Your task to perform on an android device: set the stopwatch Image 0: 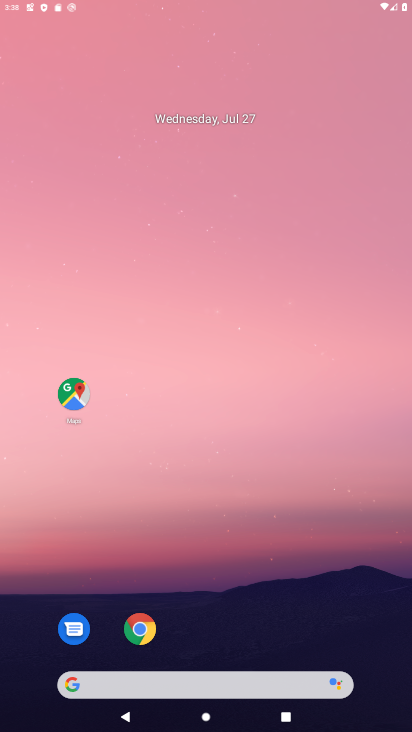
Step 0: press home button
Your task to perform on an android device: set the stopwatch Image 1: 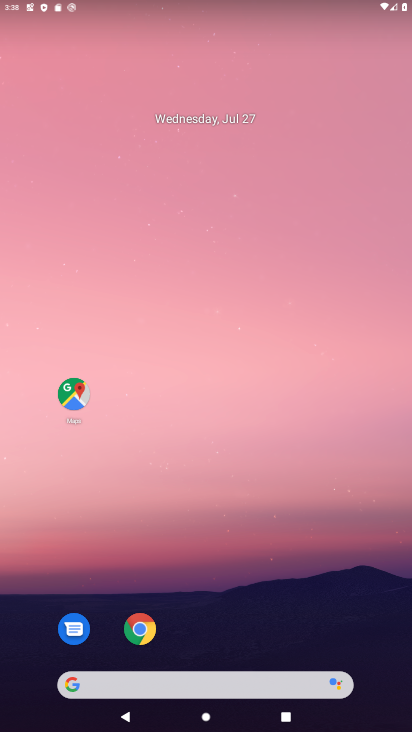
Step 1: drag from (298, 335) to (306, 33)
Your task to perform on an android device: set the stopwatch Image 2: 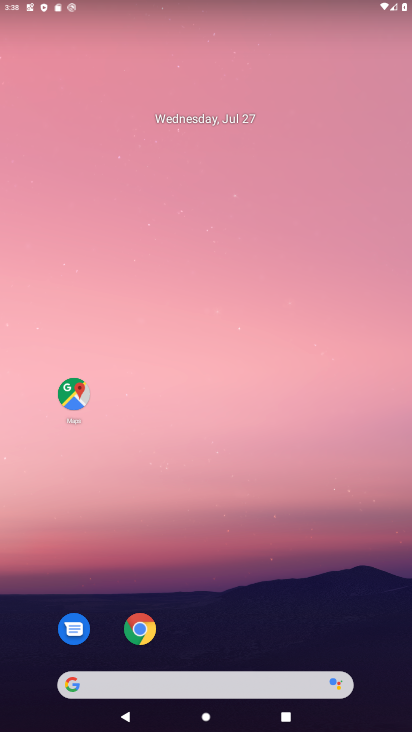
Step 2: drag from (262, 542) to (282, 1)
Your task to perform on an android device: set the stopwatch Image 3: 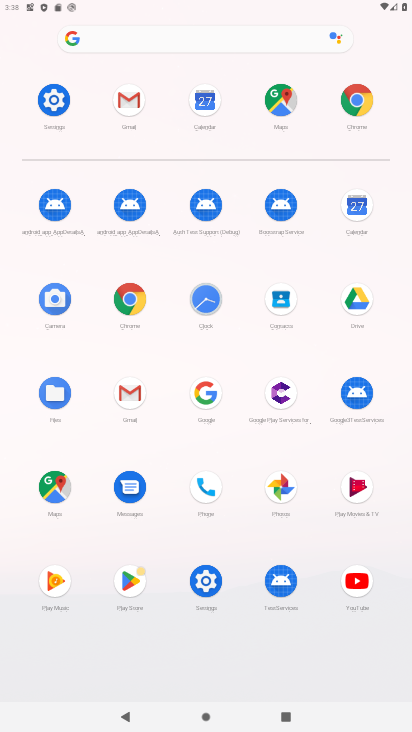
Step 3: click (211, 302)
Your task to perform on an android device: set the stopwatch Image 4: 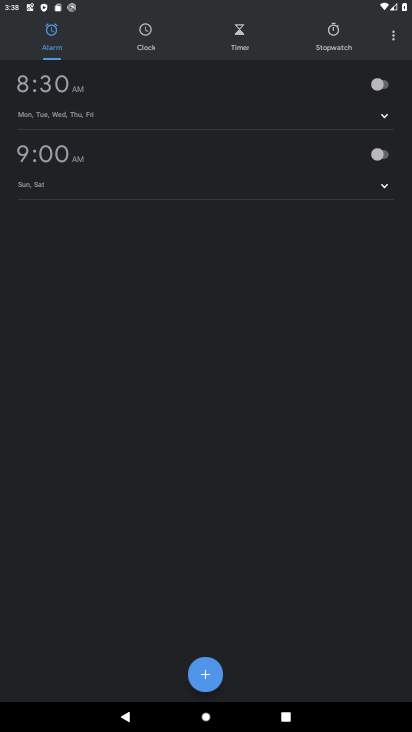
Step 4: click (346, 40)
Your task to perform on an android device: set the stopwatch Image 5: 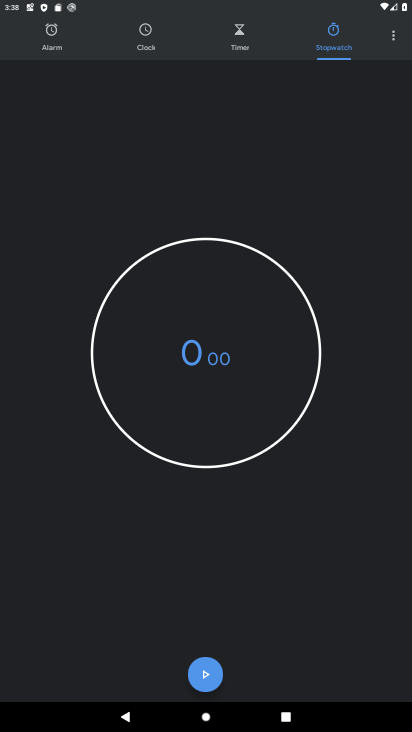
Step 5: click (210, 682)
Your task to perform on an android device: set the stopwatch Image 6: 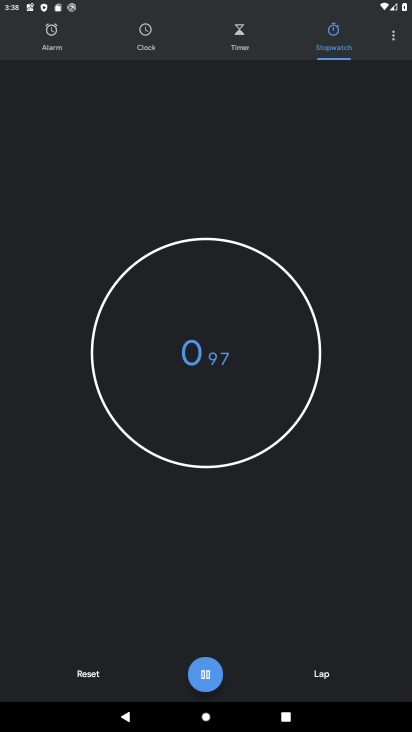
Step 6: click (210, 682)
Your task to perform on an android device: set the stopwatch Image 7: 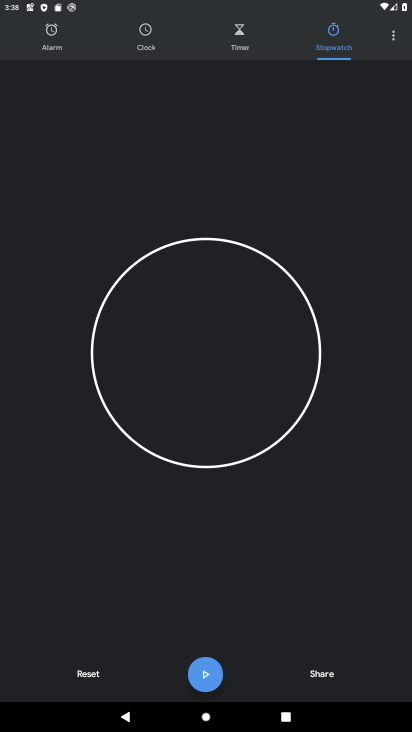
Step 7: task complete